Your task to perform on an android device: find which apps use the phone's location Image 0: 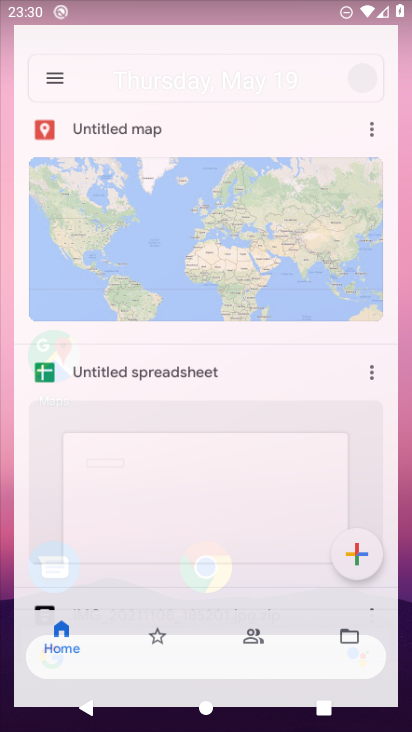
Step 0: press home button
Your task to perform on an android device: find which apps use the phone's location Image 1: 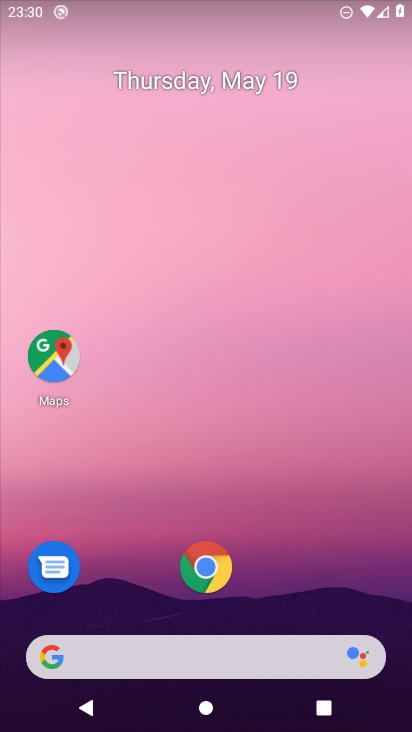
Step 1: drag from (278, 601) to (280, 258)
Your task to perform on an android device: find which apps use the phone's location Image 2: 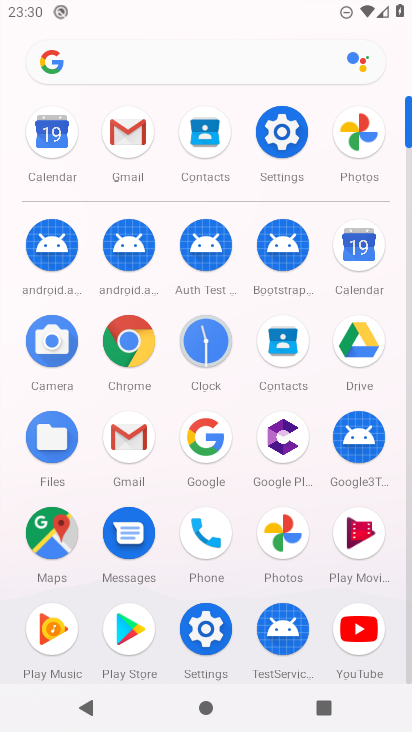
Step 2: click (207, 623)
Your task to perform on an android device: find which apps use the phone's location Image 3: 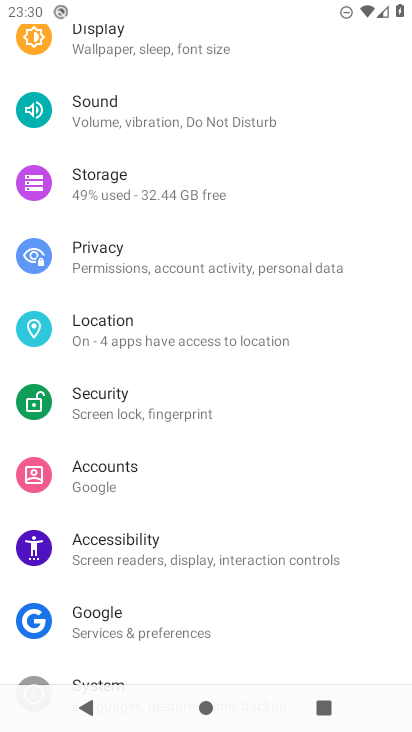
Step 3: click (133, 336)
Your task to perform on an android device: find which apps use the phone's location Image 4: 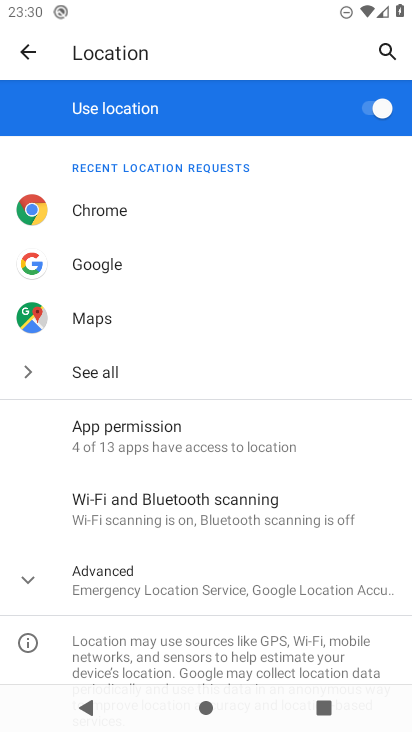
Step 4: click (171, 426)
Your task to perform on an android device: find which apps use the phone's location Image 5: 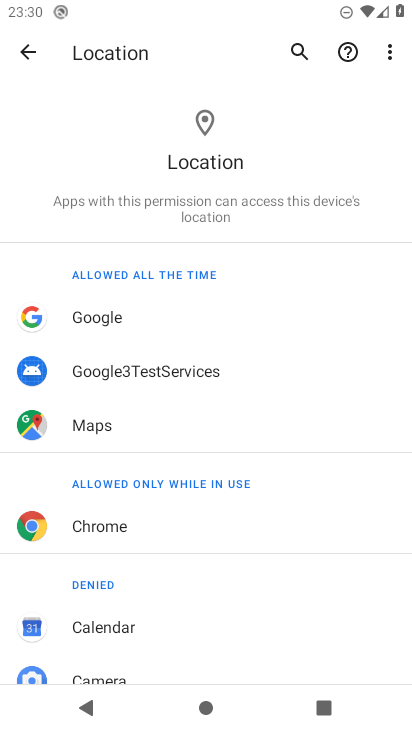
Step 5: task complete